Your task to perform on an android device: Open calendar and show me the first week of next month Image 0: 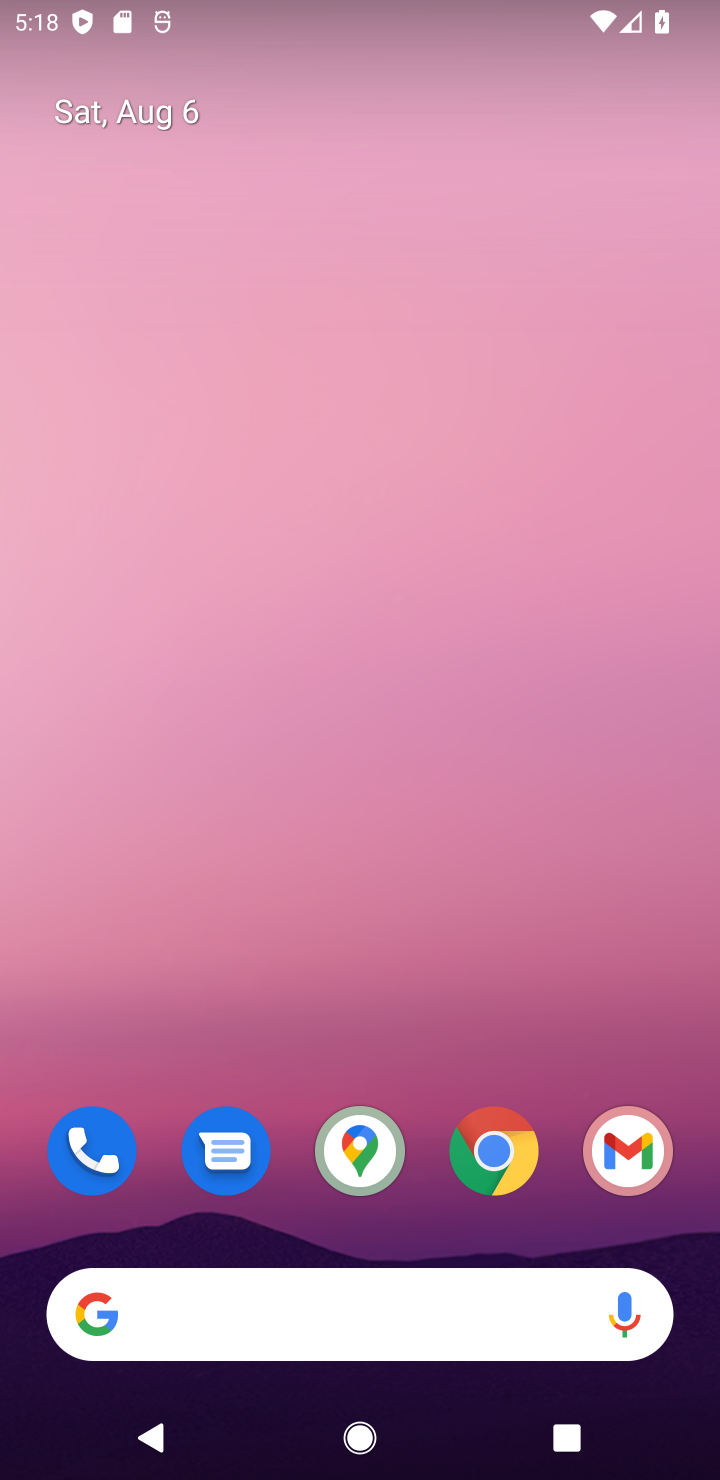
Step 0: click (498, 1165)
Your task to perform on an android device: Open calendar and show me the first week of next month Image 1: 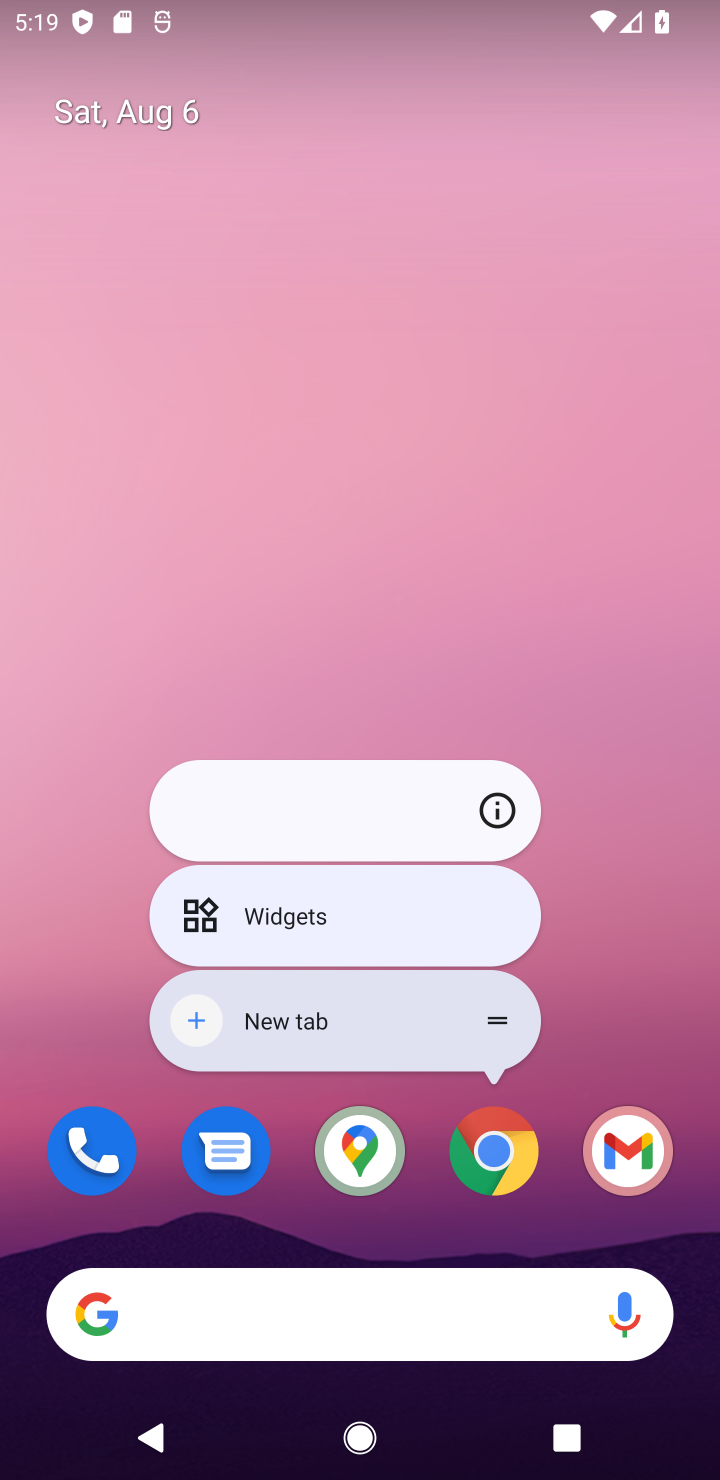
Step 1: drag from (130, 960) to (370, 308)
Your task to perform on an android device: Open calendar and show me the first week of next month Image 2: 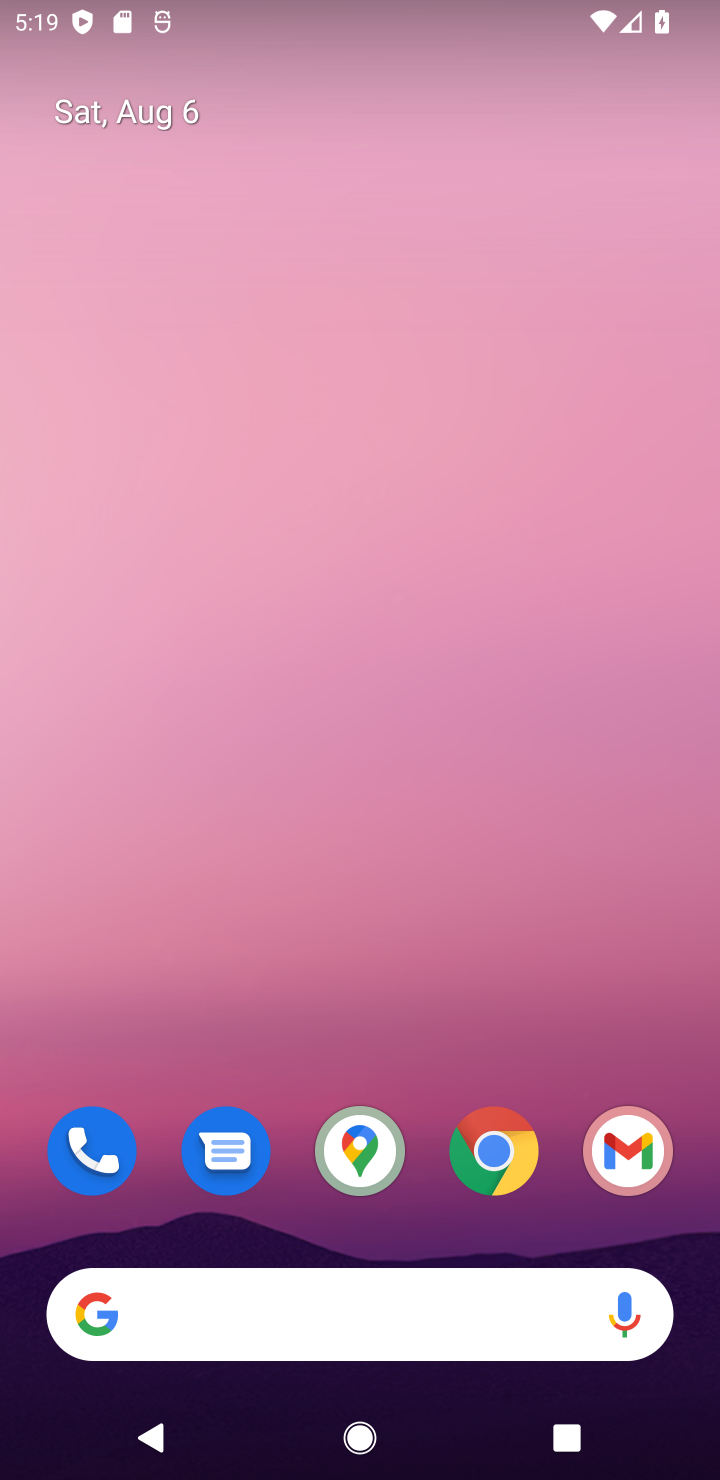
Step 2: drag from (15, 1401) to (422, 342)
Your task to perform on an android device: Open calendar and show me the first week of next month Image 3: 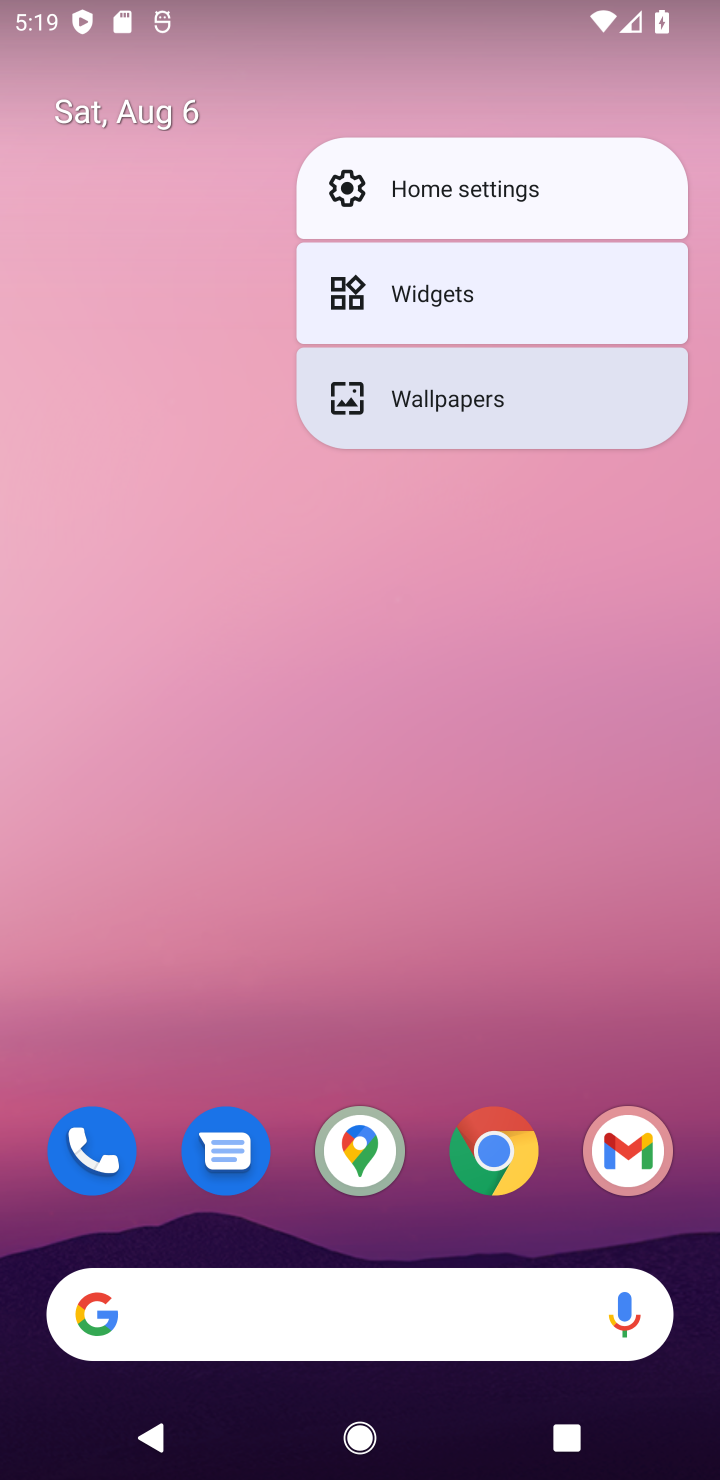
Step 3: drag from (267, 1033) to (623, 485)
Your task to perform on an android device: Open calendar and show me the first week of next month Image 4: 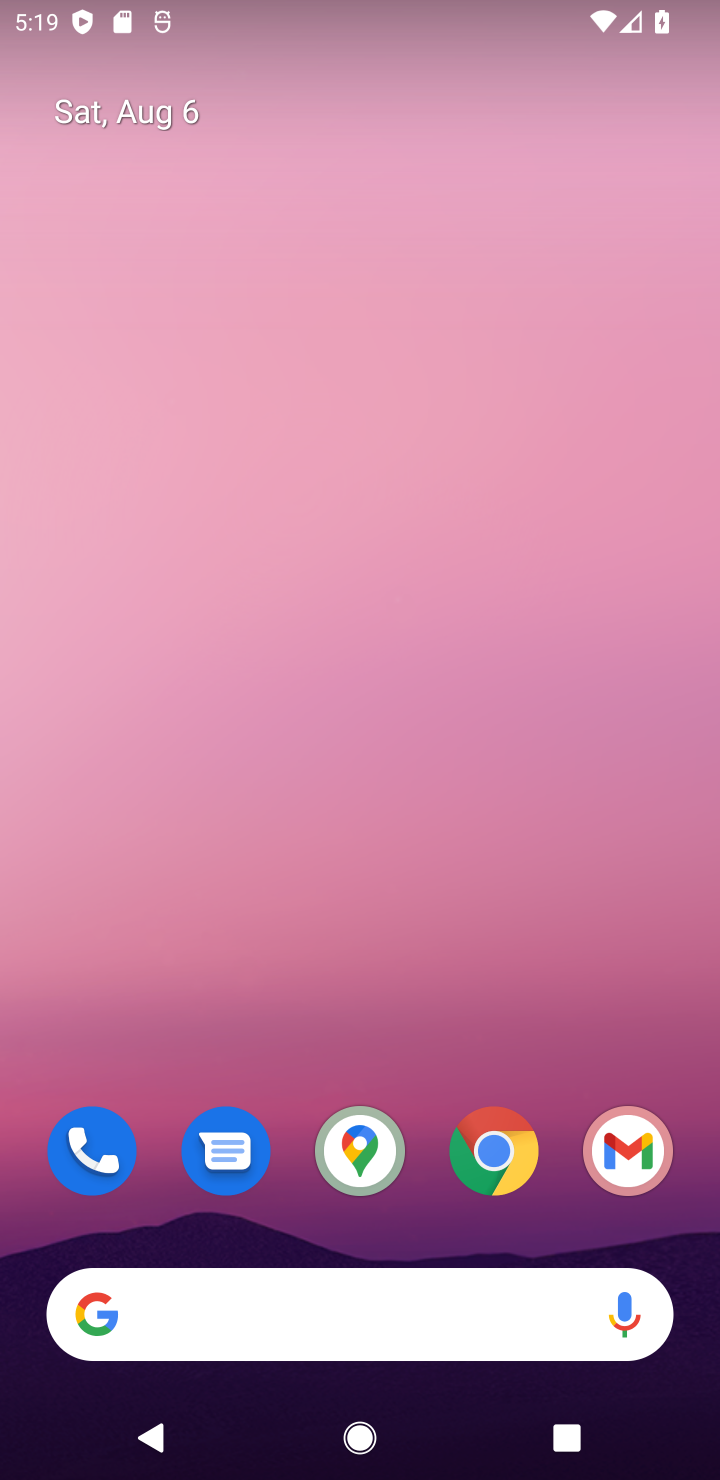
Step 4: drag from (201, 833) to (424, 78)
Your task to perform on an android device: Open calendar and show me the first week of next month Image 5: 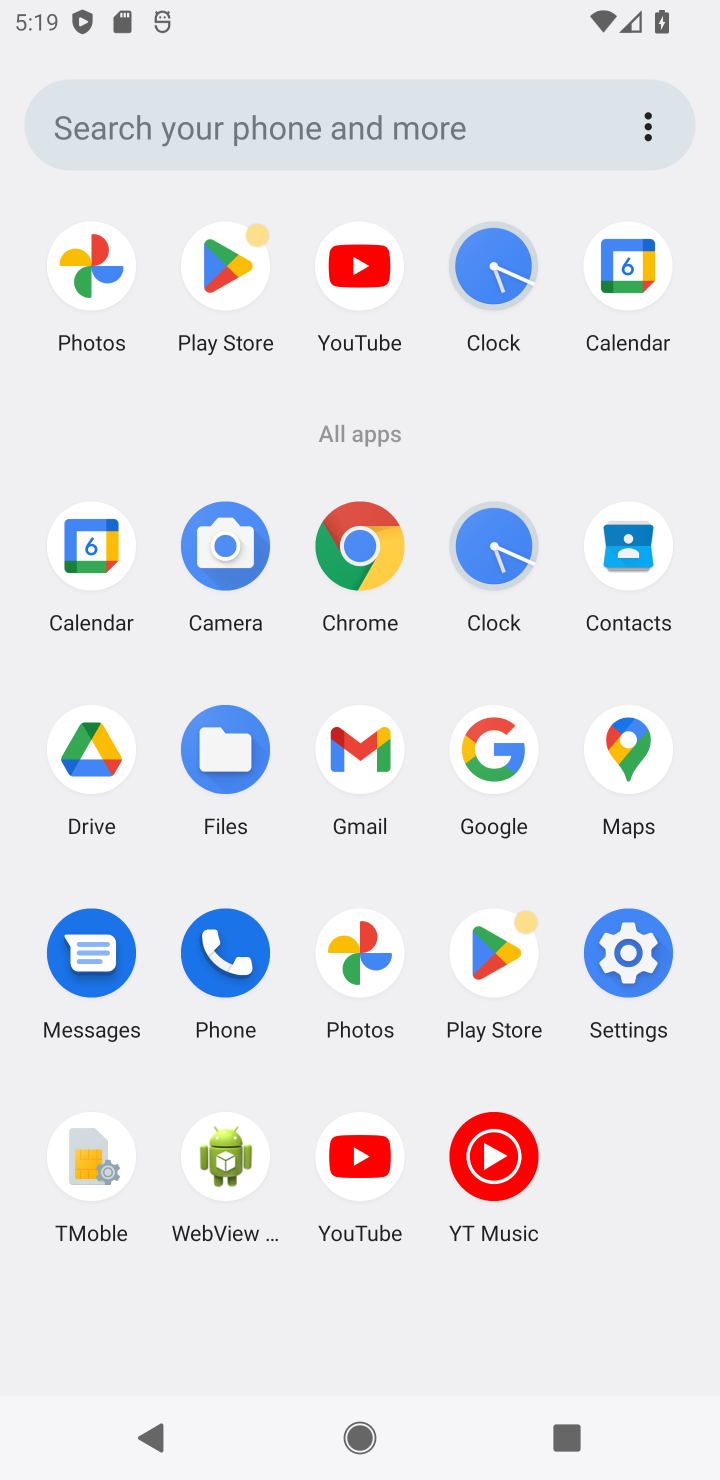
Step 5: click (623, 287)
Your task to perform on an android device: Open calendar and show me the first week of next month Image 6: 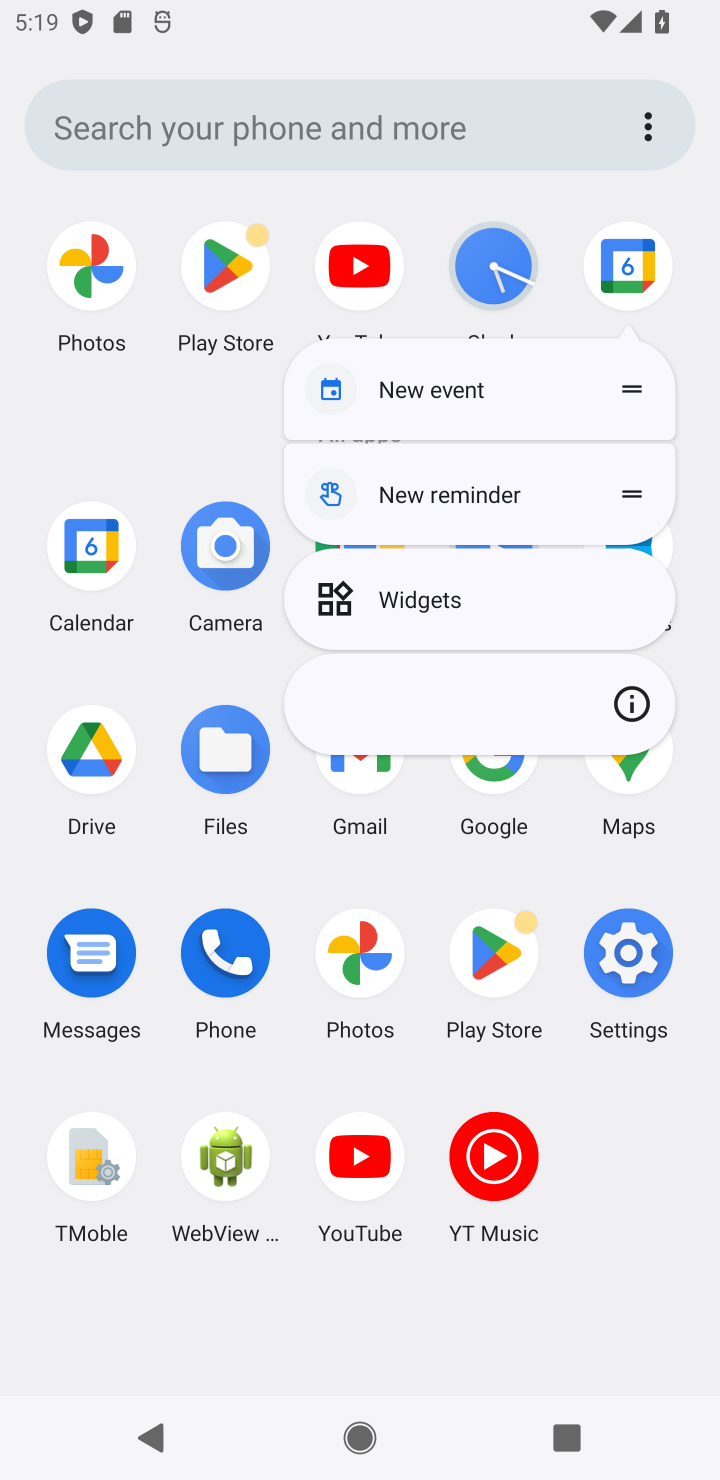
Step 6: click (106, 548)
Your task to perform on an android device: Open calendar and show me the first week of next month Image 7: 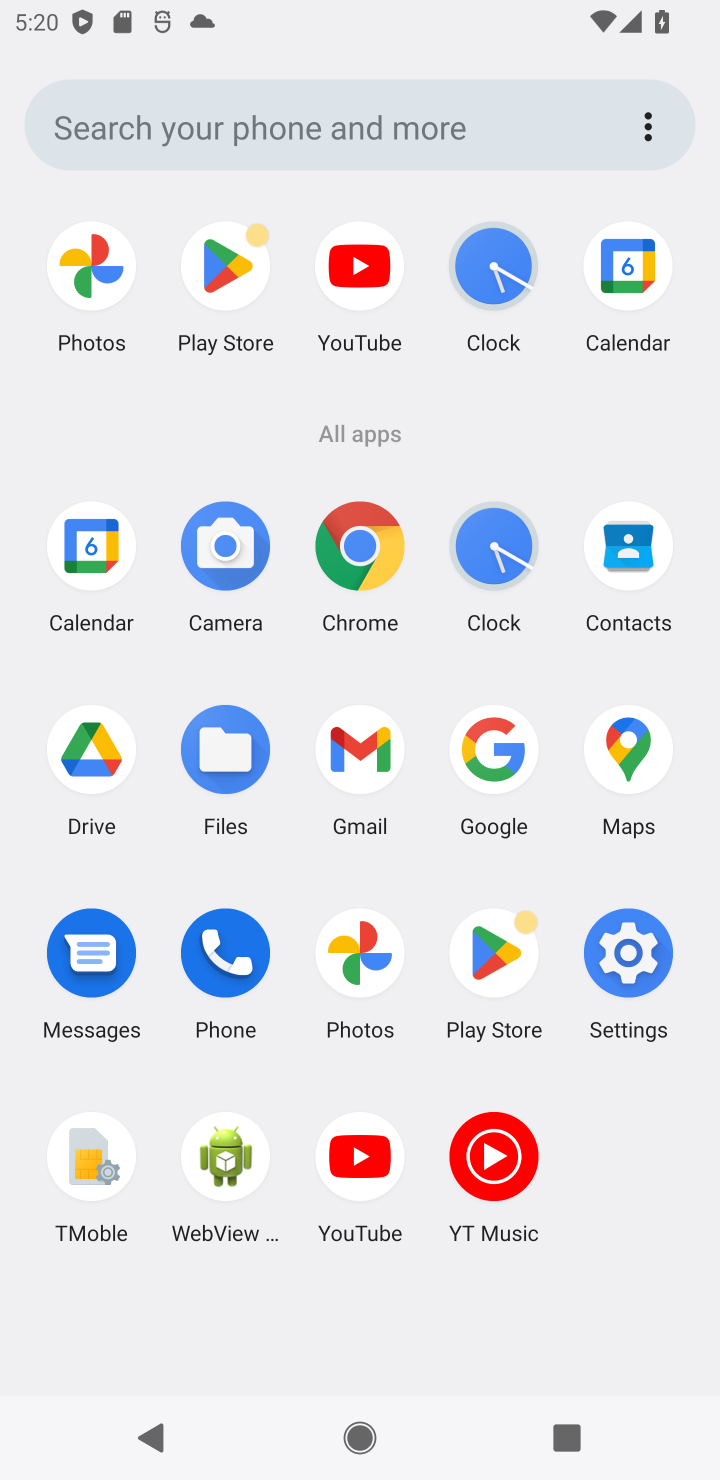
Step 7: click (62, 542)
Your task to perform on an android device: Open calendar and show me the first week of next month Image 8: 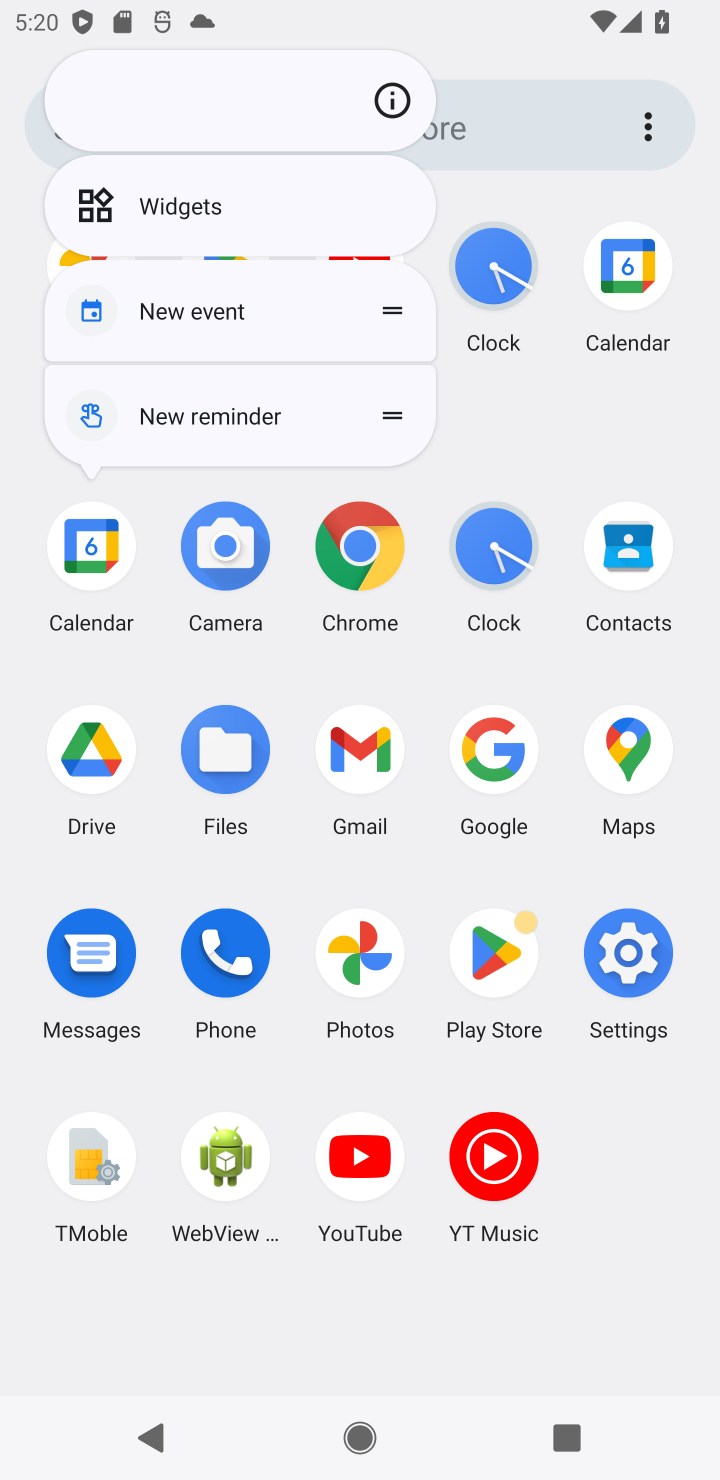
Step 8: click (62, 542)
Your task to perform on an android device: Open calendar and show me the first week of next month Image 9: 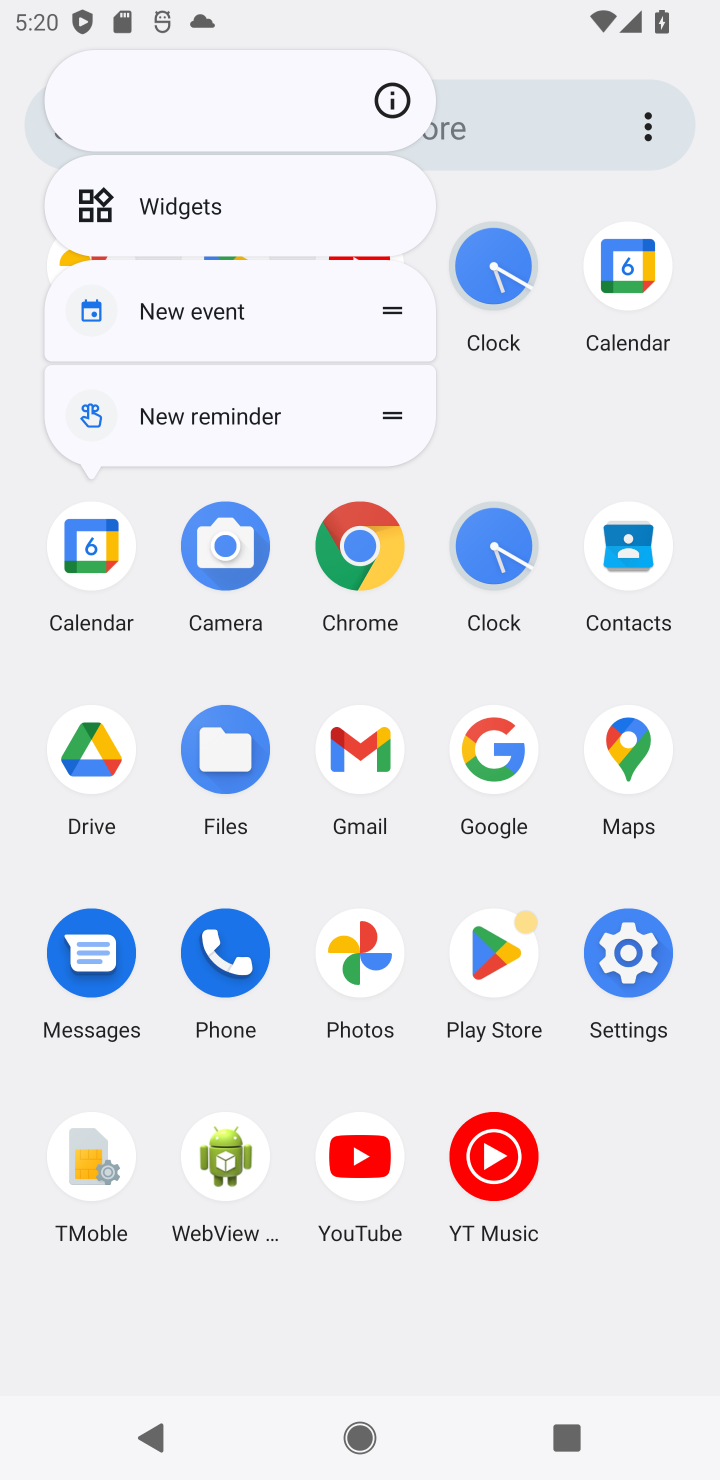
Step 9: click (95, 557)
Your task to perform on an android device: Open calendar and show me the first week of next month Image 10: 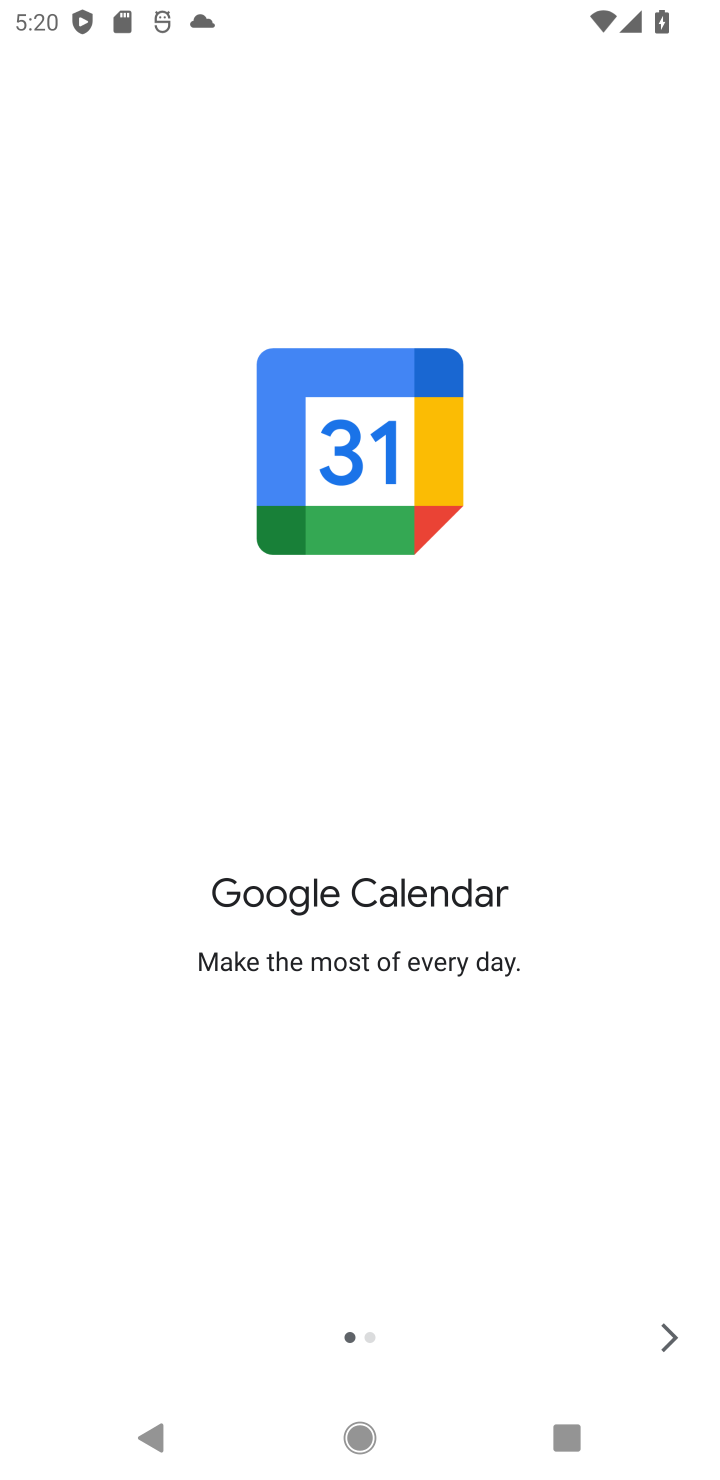
Step 10: click (685, 1347)
Your task to perform on an android device: Open calendar and show me the first week of next month Image 11: 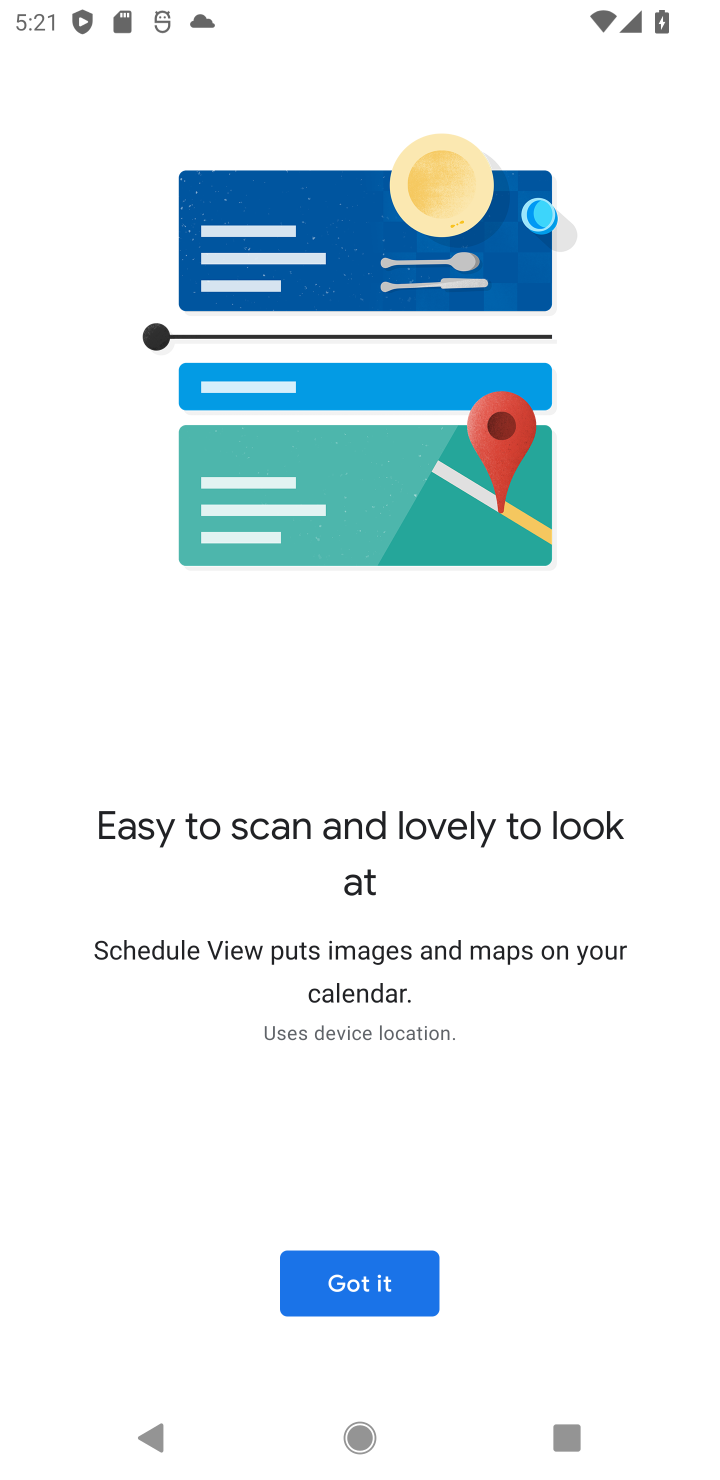
Step 11: click (397, 1295)
Your task to perform on an android device: Open calendar and show me the first week of next month Image 12: 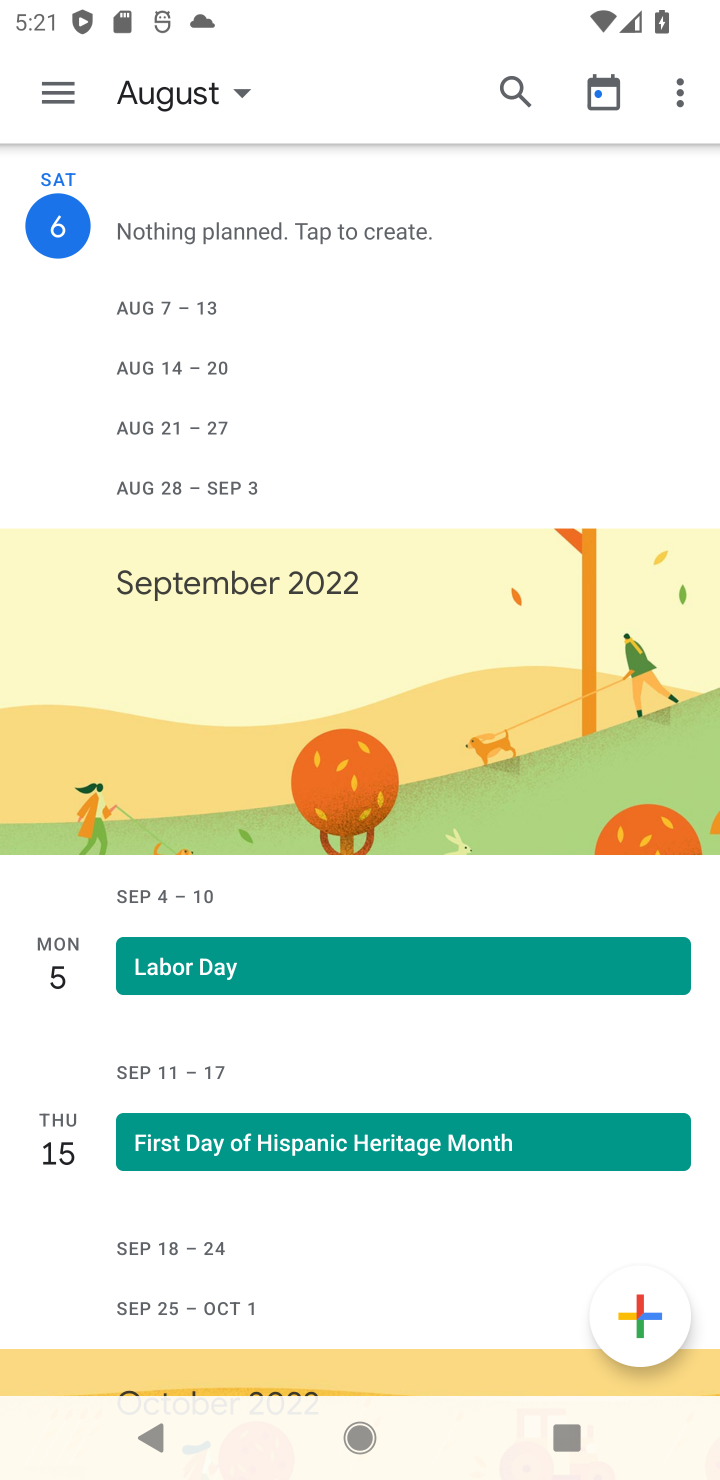
Step 12: click (176, 78)
Your task to perform on an android device: Open calendar and show me the first week of next month Image 13: 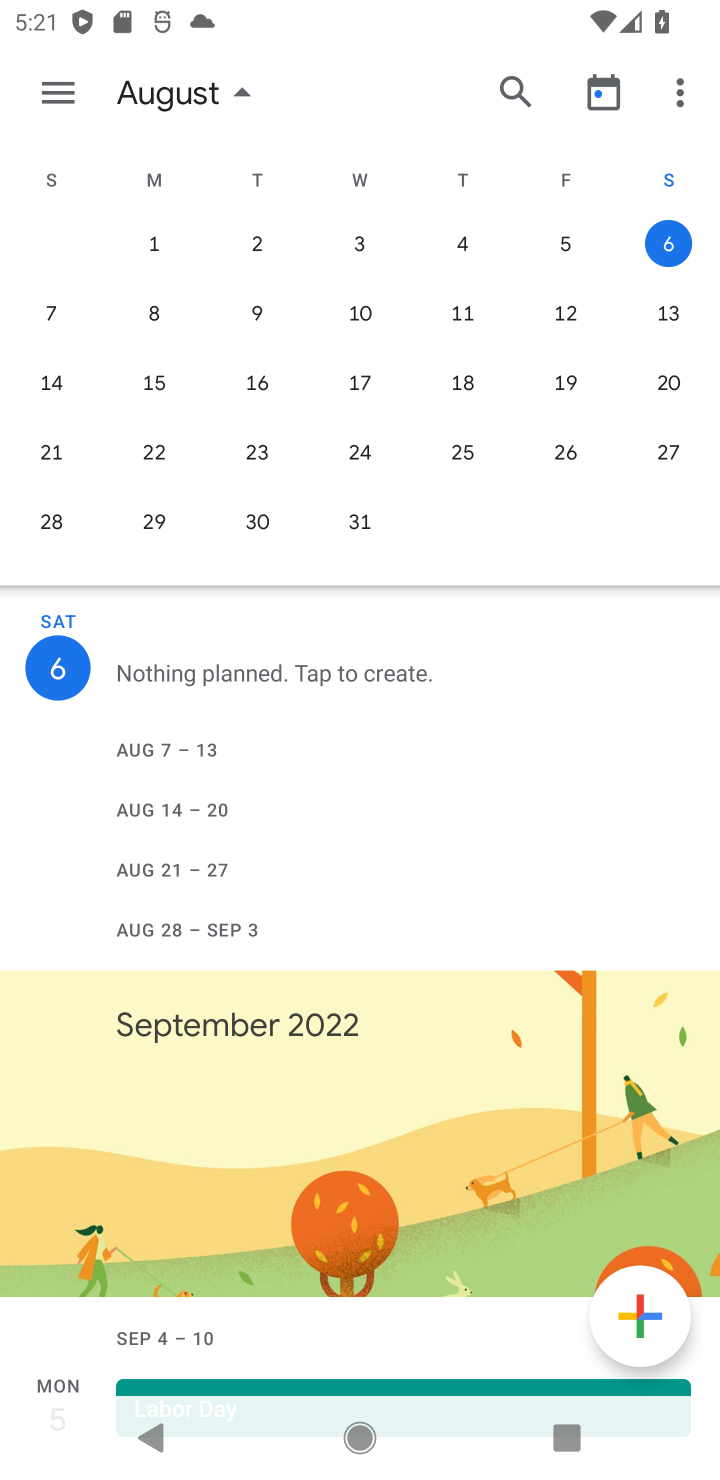
Step 13: drag from (658, 392) to (21, 302)
Your task to perform on an android device: Open calendar and show me the first week of next month Image 14: 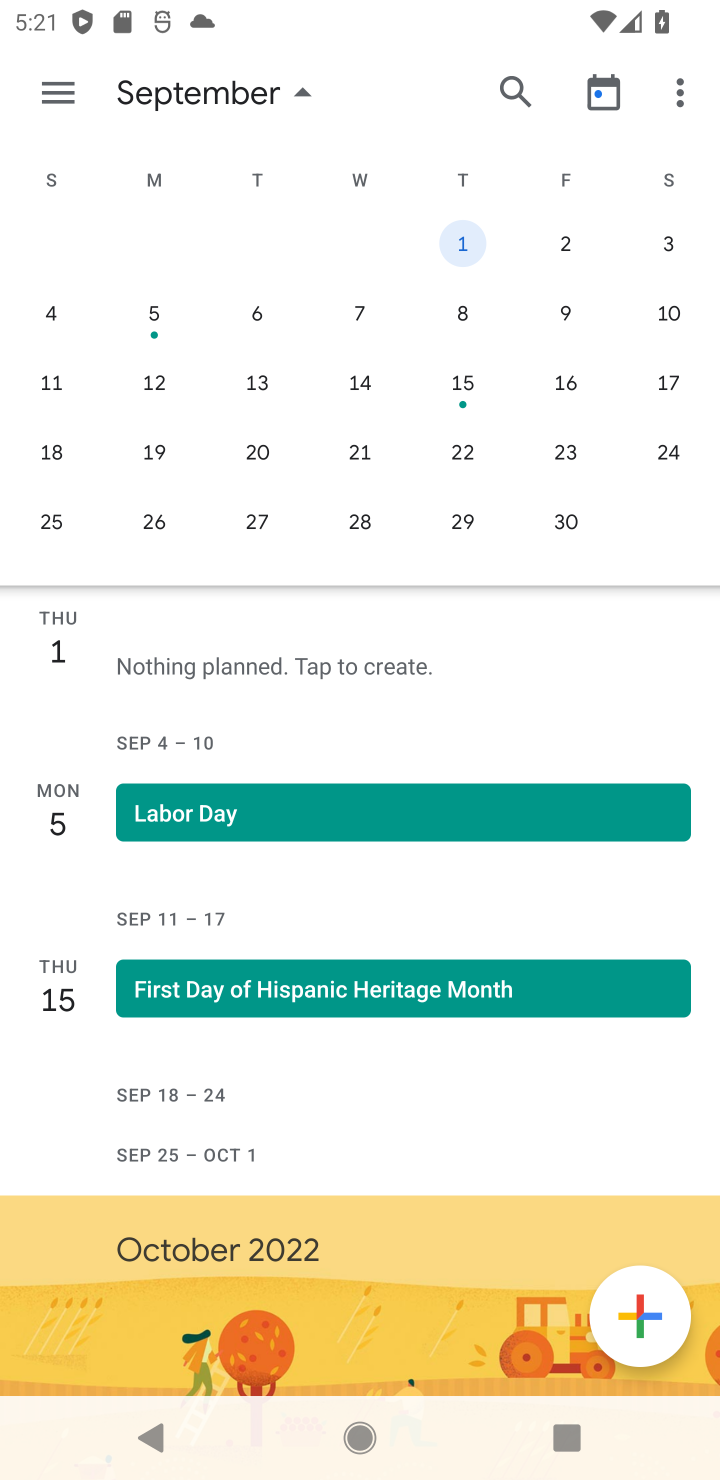
Step 14: click (54, 306)
Your task to perform on an android device: Open calendar and show me the first week of next month Image 15: 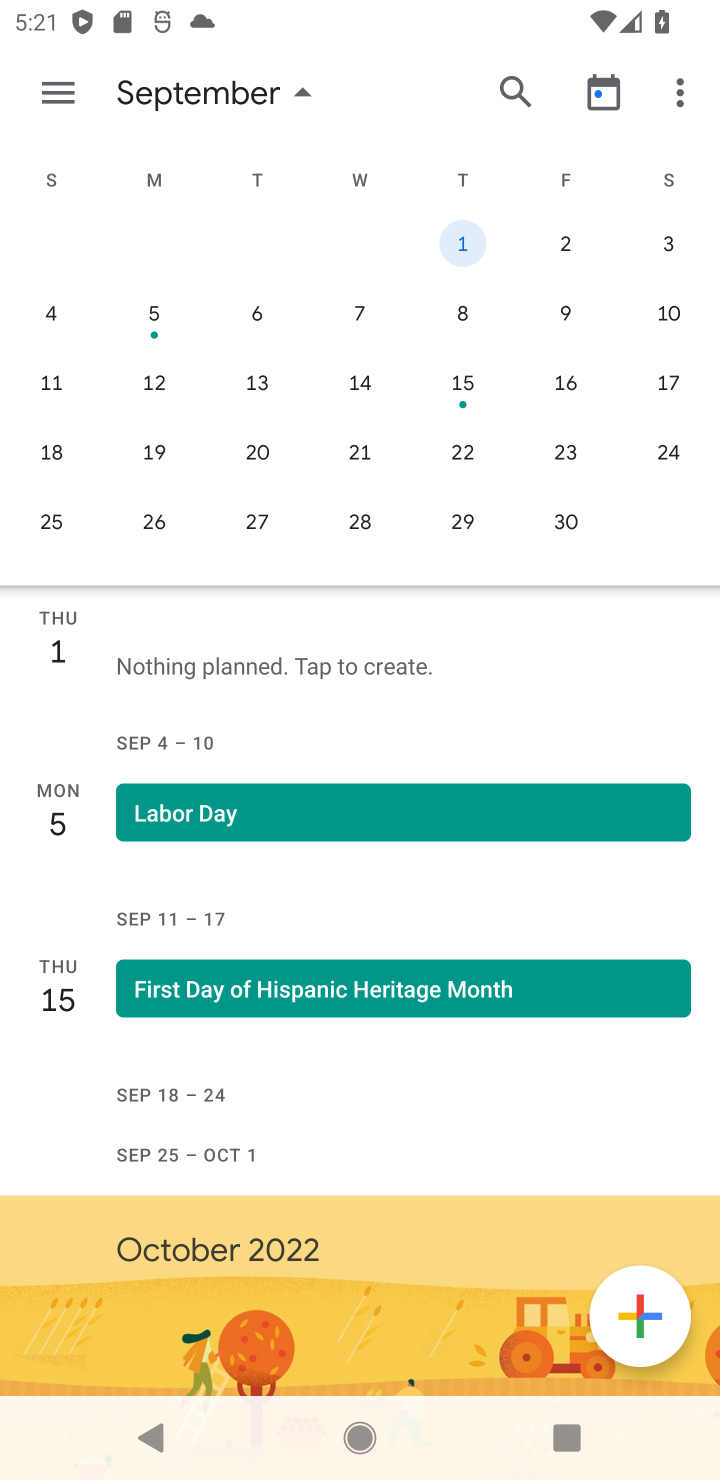
Step 15: click (51, 312)
Your task to perform on an android device: Open calendar and show me the first week of next month Image 16: 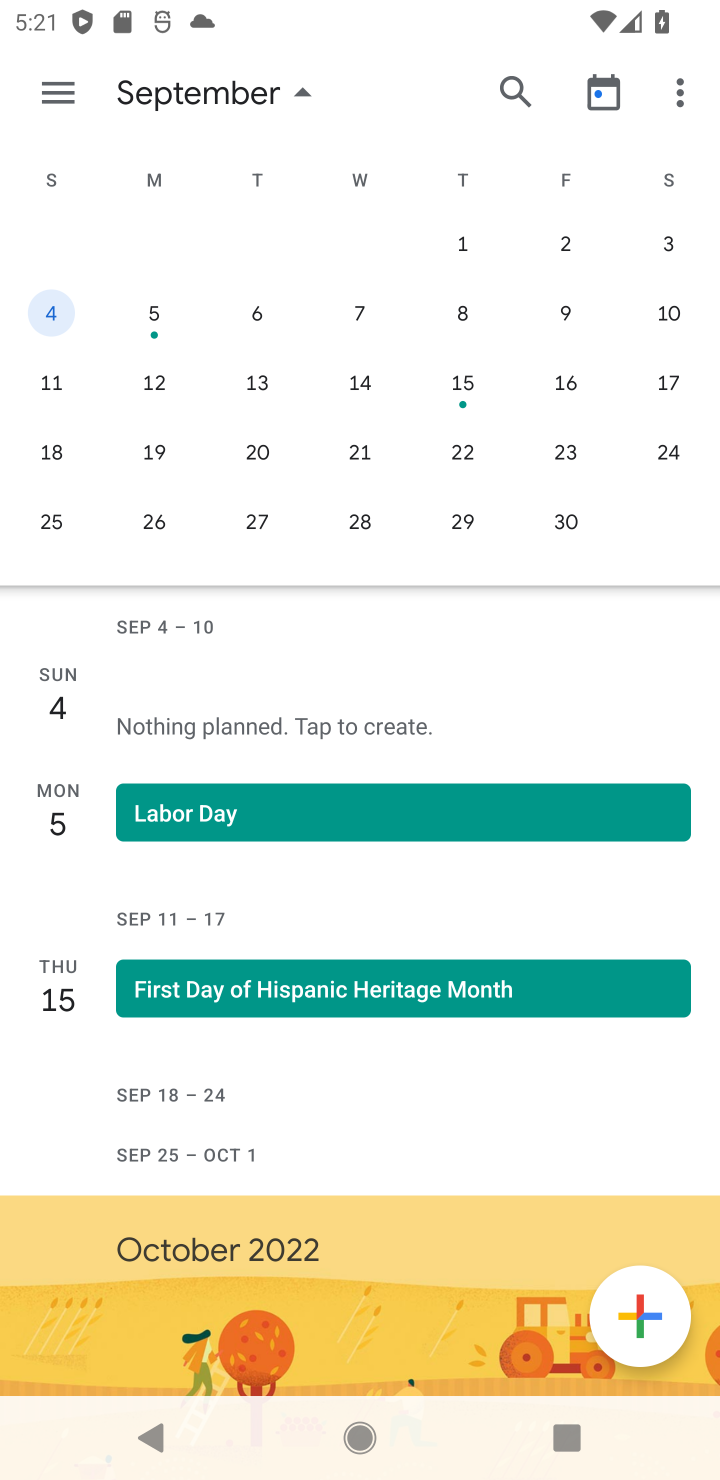
Step 16: task complete